Your task to perform on an android device: turn pop-ups on in chrome Image 0: 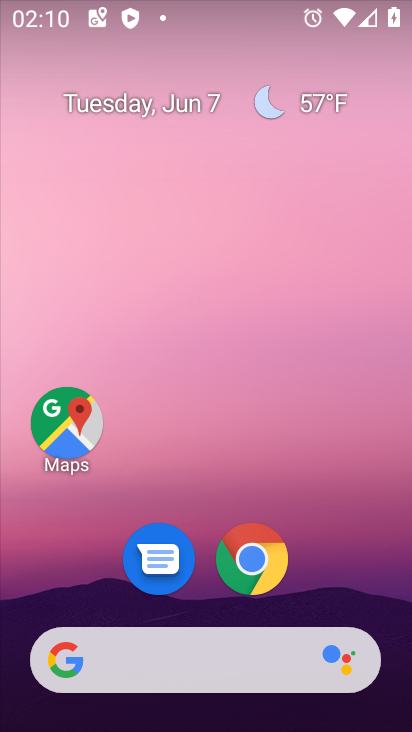
Step 0: click (253, 558)
Your task to perform on an android device: turn pop-ups on in chrome Image 1: 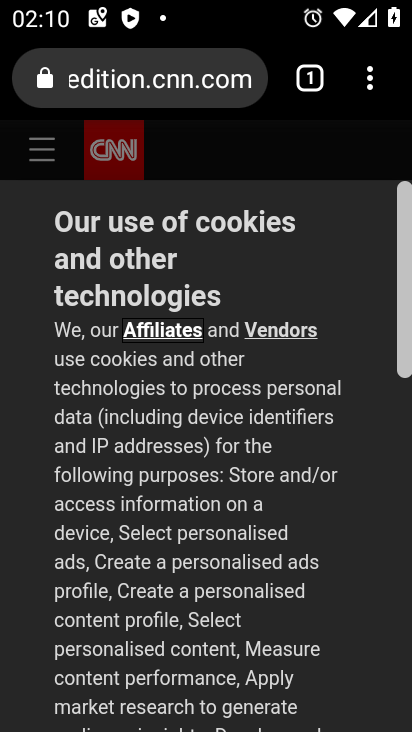
Step 1: click (370, 77)
Your task to perform on an android device: turn pop-ups on in chrome Image 2: 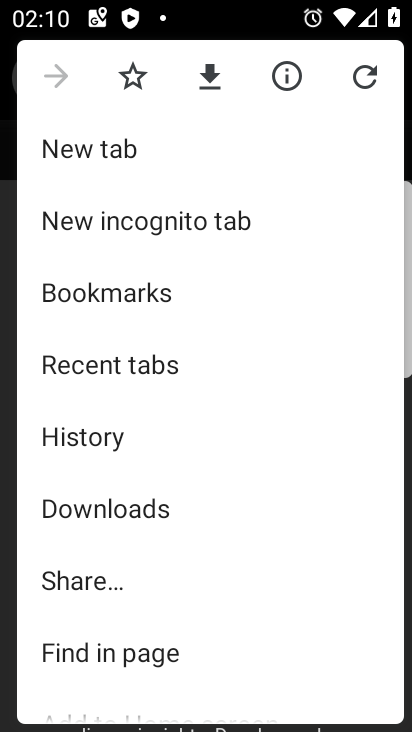
Step 2: drag from (173, 570) to (169, 418)
Your task to perform on an android device: turn pop-ups on in chrome Image 3: 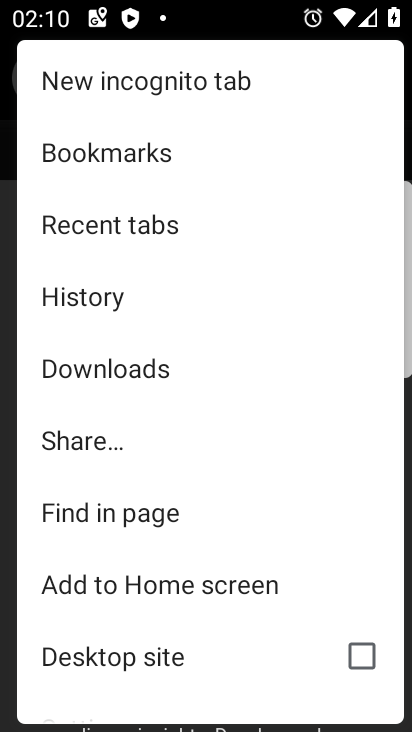
Step 3: drag from (166, 545) to (177, 414)
Your task to perform on an android device: turn pop-ups on in chrome Image 4: 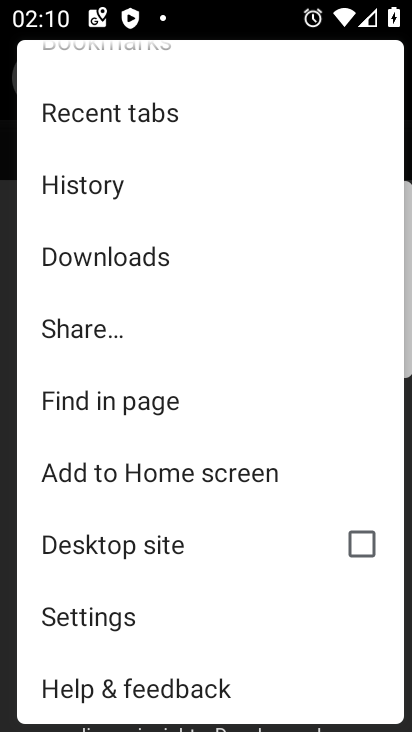
Step 4: click (114, 616)
Your task to perform on an android device: turn pop-ups on in chrome Image 5: 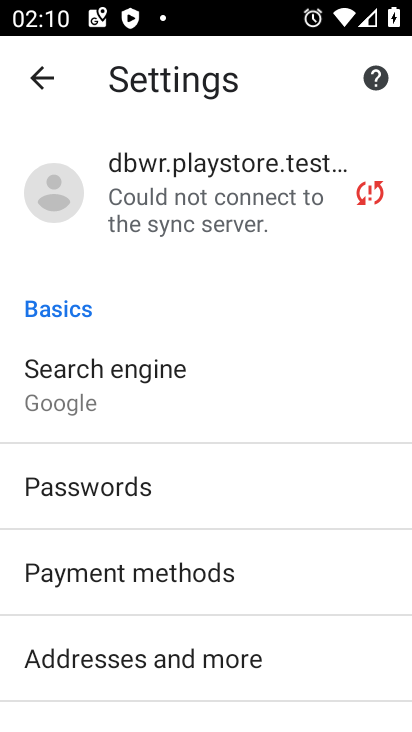
Step 5: drag from (115, 625) to (156, 481)
Your task to perform on an android device: turn pop-ups on in chrome Image 6: 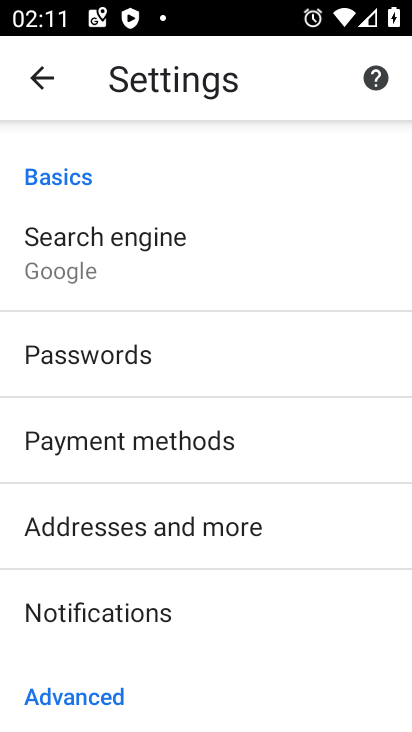
Step 6: drag from (167, 643) to (120, 427)
Your task to perform on an android device: turn pop-ups on in chrome Image 7: 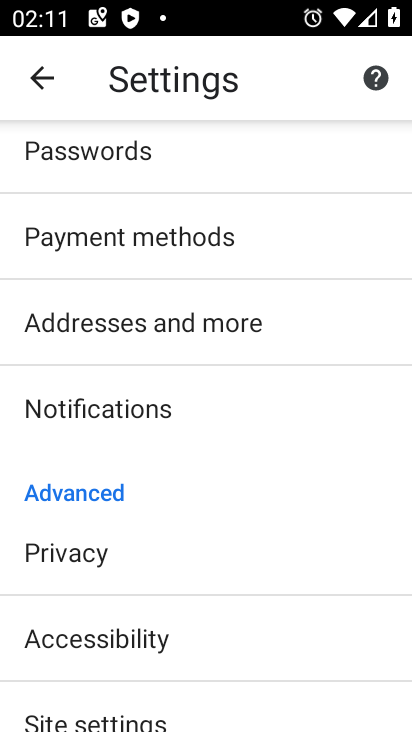
Step 7: drag from (129, 602) to (154, 462)
Your task to perform on an android device: turn pop-ups on in chrome Image 8: 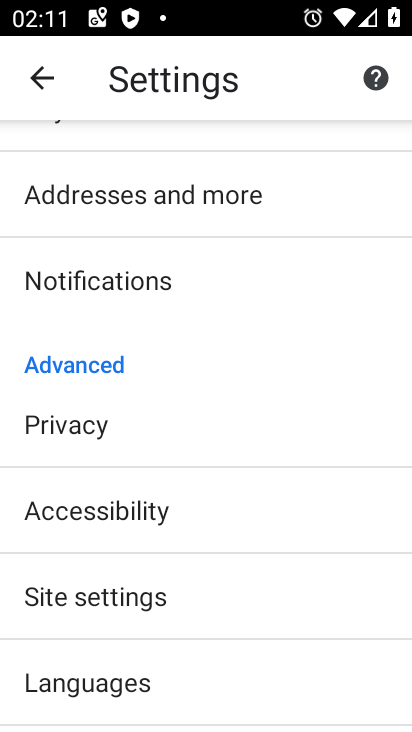
Step 8: drag from (146, 631) to (144, 501)
Your task to perform on an android device: turn pop-ups on in chrome Image 9: 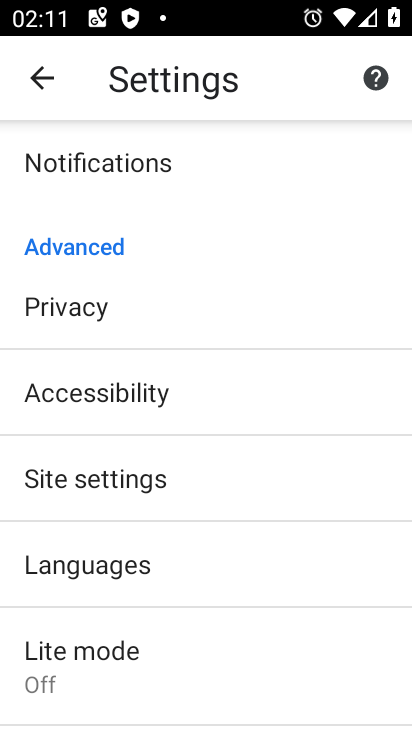
Step 9: click (150, 486)
Your task to perform on an android device: turn pop-ups on in chrome Image 10: 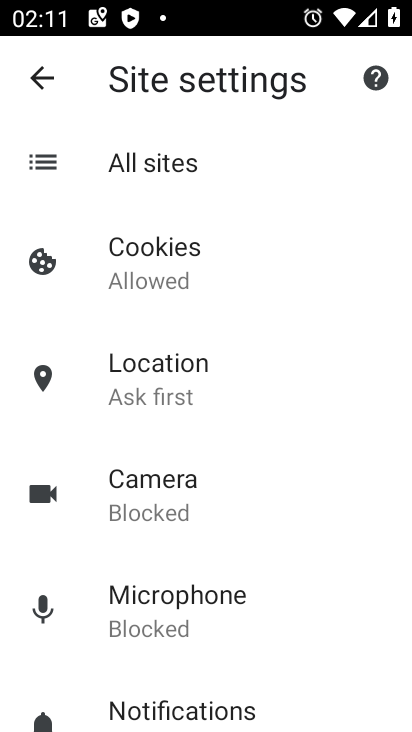
Step 10: drag from (161, 557) to (144, 385)
Your task to perform on an android device: turn pop-ups on in chrome Image 11: 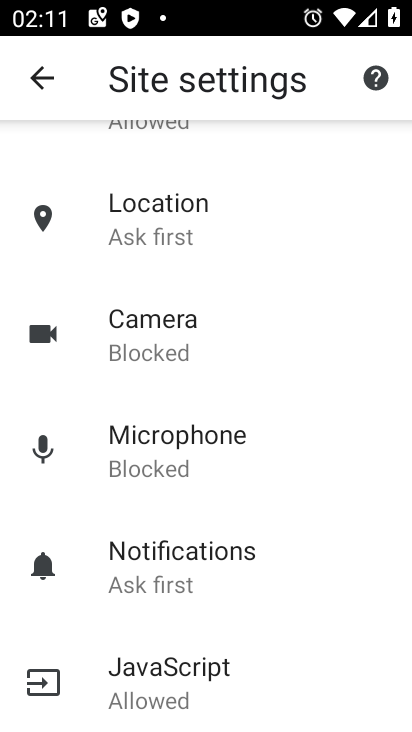
Step 11: drag from (158, 619) to (167, 461)
Your task to perform on an android device: turn pop-ups on in chrome Image 12: 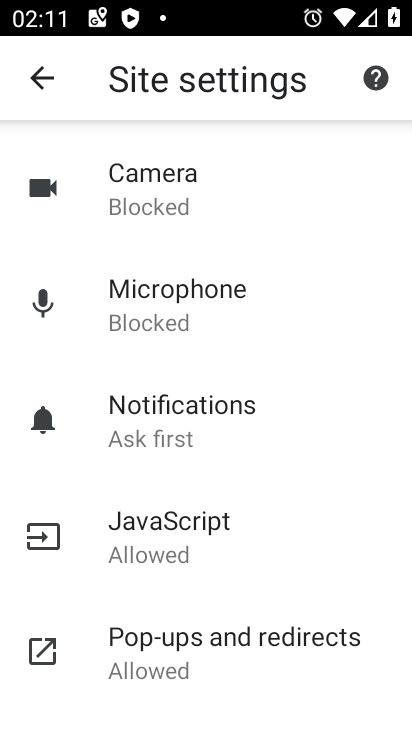
Step 12: click (188, 632)
Your task to perform on an android device: turn pop-ups on in chrome Image 13: 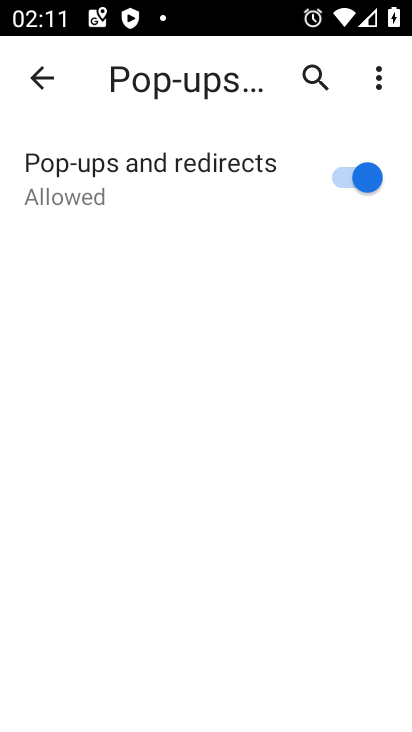
Step 13: task complete